Your task to perform on an android device: Open calendar and show me the fourth week of next month Image 0: 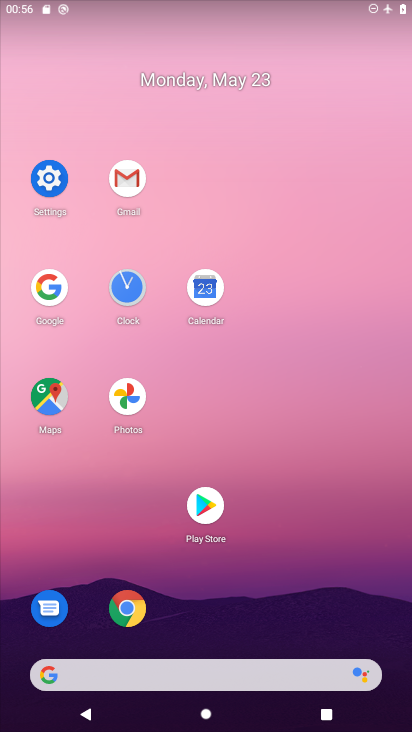
Step 0: click (208, 293)
Your task to perform on an android device: Open calendar and show me the fourth week of next month Image 1: 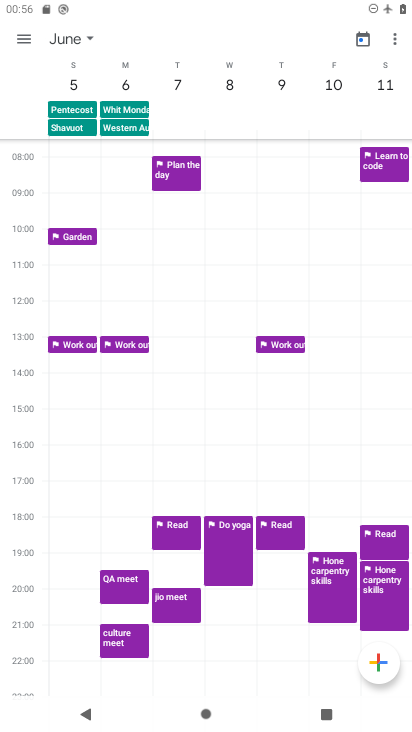
Step 1: task complete